Your task to perform on an android device: turn on bluetooth scan Image 0: 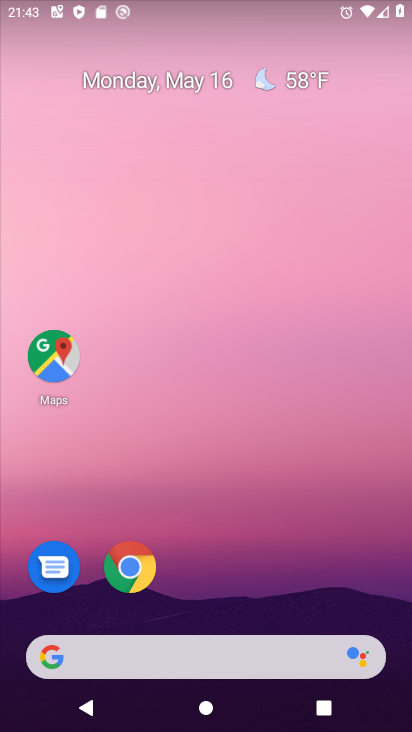
Step 0: drag from (217, 566) to (202, 173)
Your task to perform on an android device: turn on bluetooth scan Image 1: 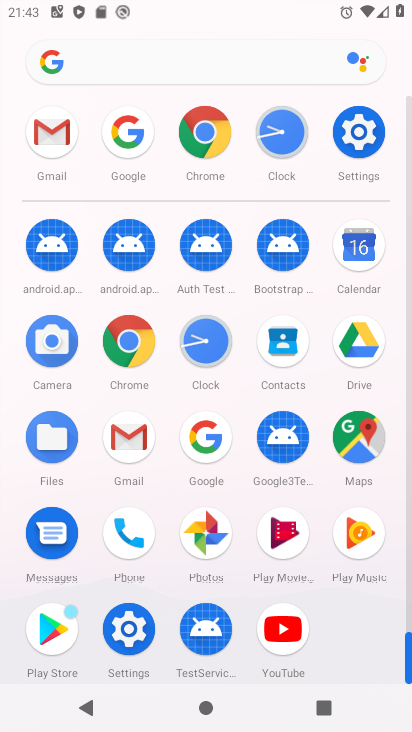
Step 1: click (363, 124)
Your task to perform on an android device: turn on bluetooth scan Image 2: 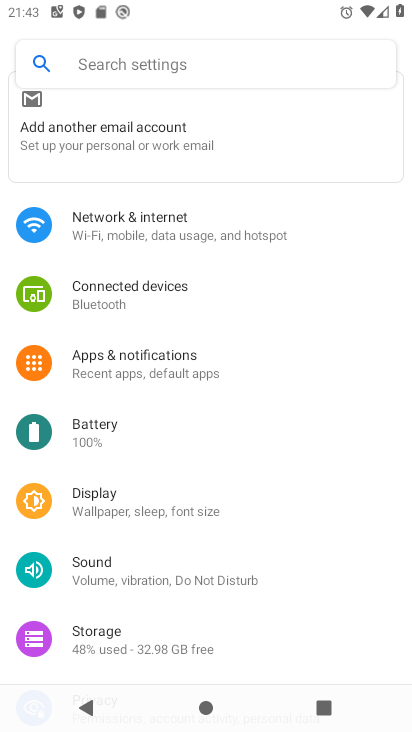
Step 2: click (137, 64)
Your task to perform on an android device: turn on bluetooth scan Image 3: 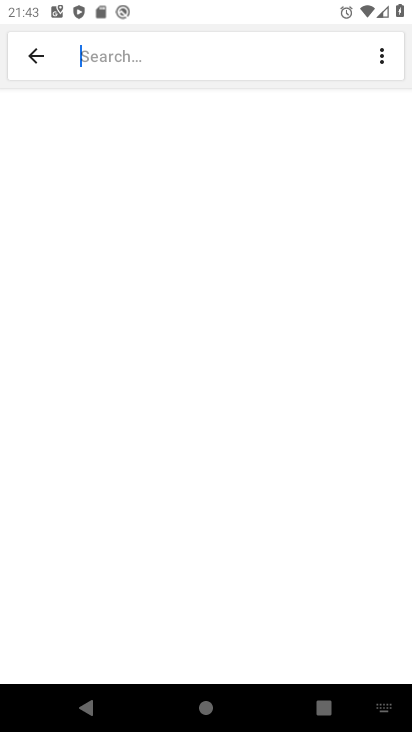
Step 3: type "bluetooth scan"
Your task to perform on an android device: turn on bluetooth scan Image 4: 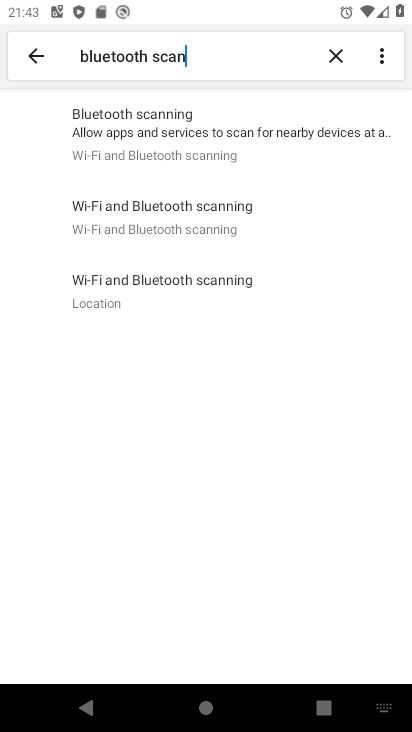
Step 4: click (233, 138)
Your task to perform on an android device: turn on bluetooth scan Image 5: 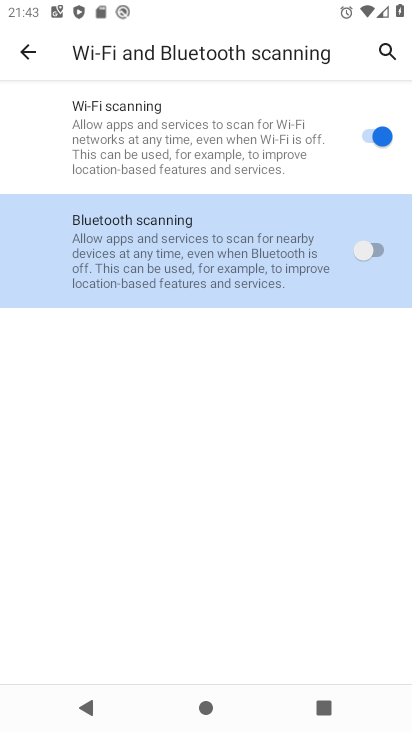
Step 5: click (376, 238)
Your task to perform on an android device: turn on bluetooth scan Image 6: 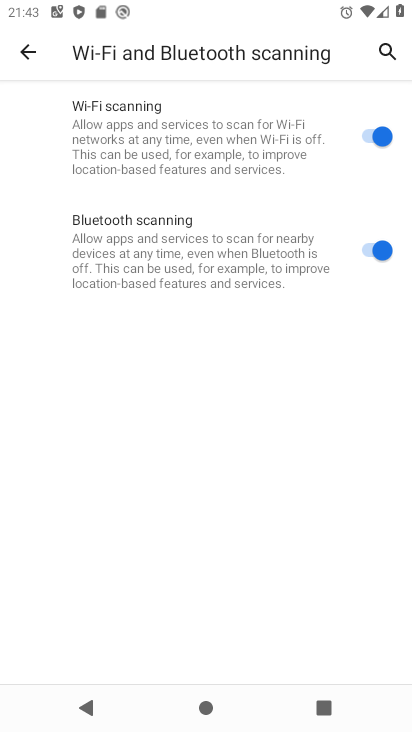
Step 6: task complete